Your task to perform on an android device: Search for flights from Tokyo to Mexico city Image 0: 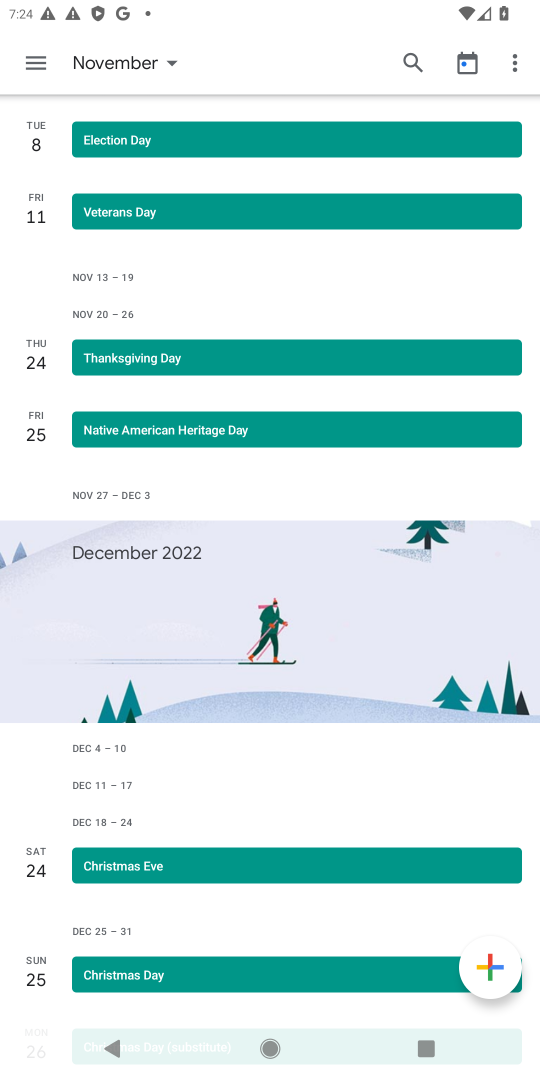
Step 0: press home button
Your task to perform on an android device: Search for flights from Tokyo to Mexico city Image 1: 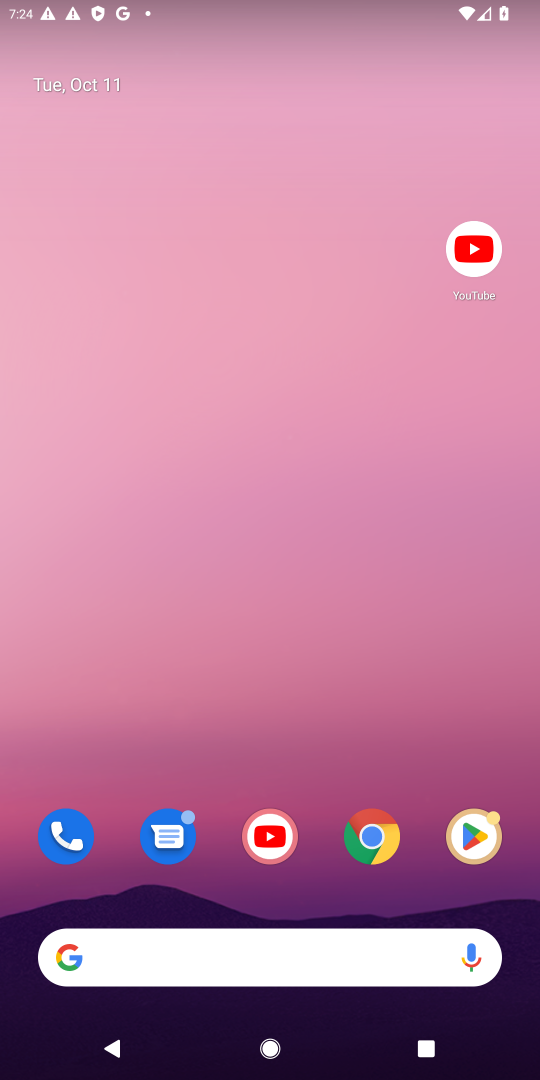
Step 1: click (369, 841)
Your task to perform on an android device: Search for flights from Tokyo to Mexico city Image 2: 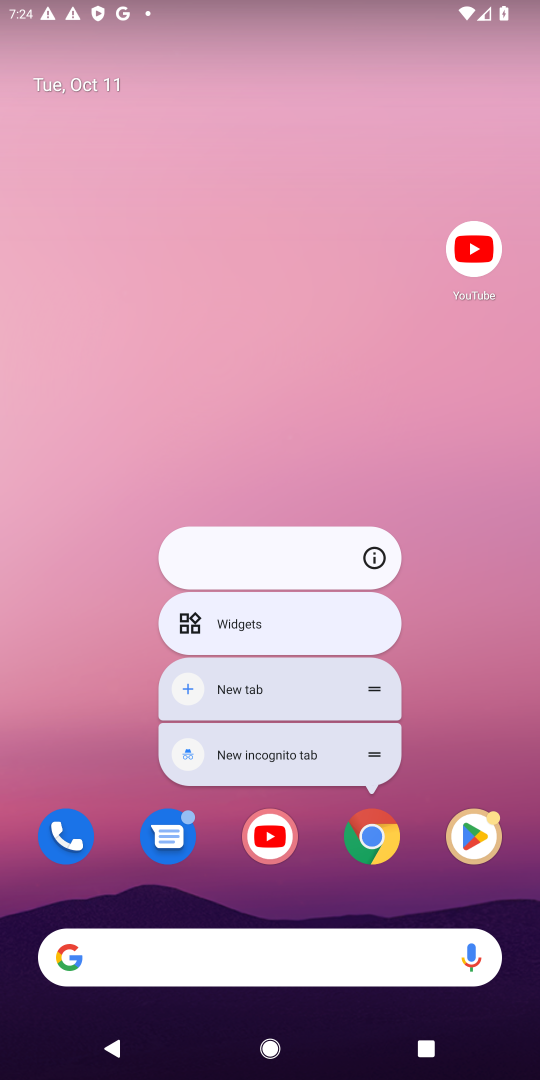
Step 2: click (369, 841)
Your task to perform on an android device: Search for flights from Tokyo to Mexico city Image 3: 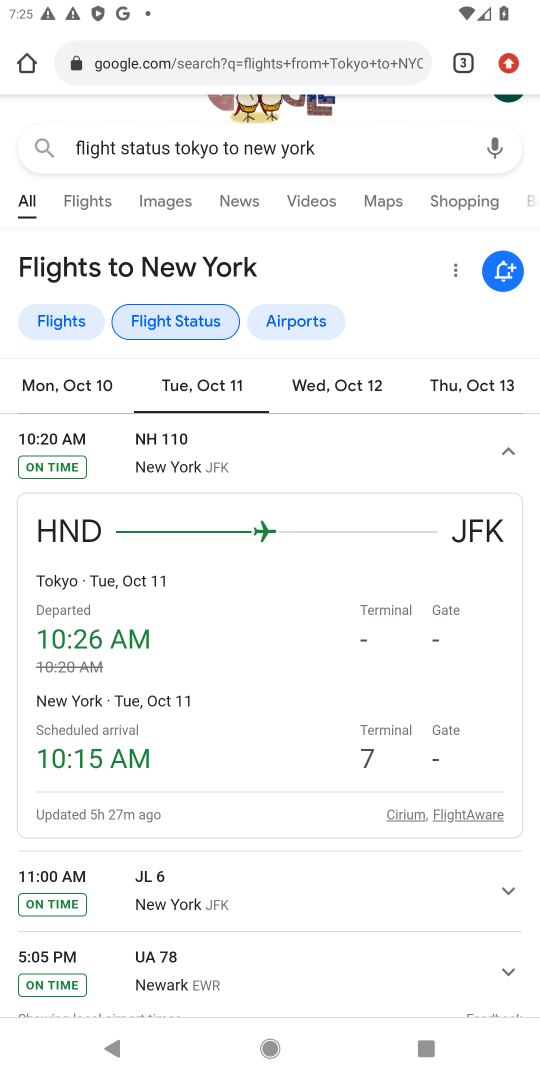
Step 3: click (348, 50)
Your task to perform on an android device: Search for flights from Tokyo to Mexico city Image 4: 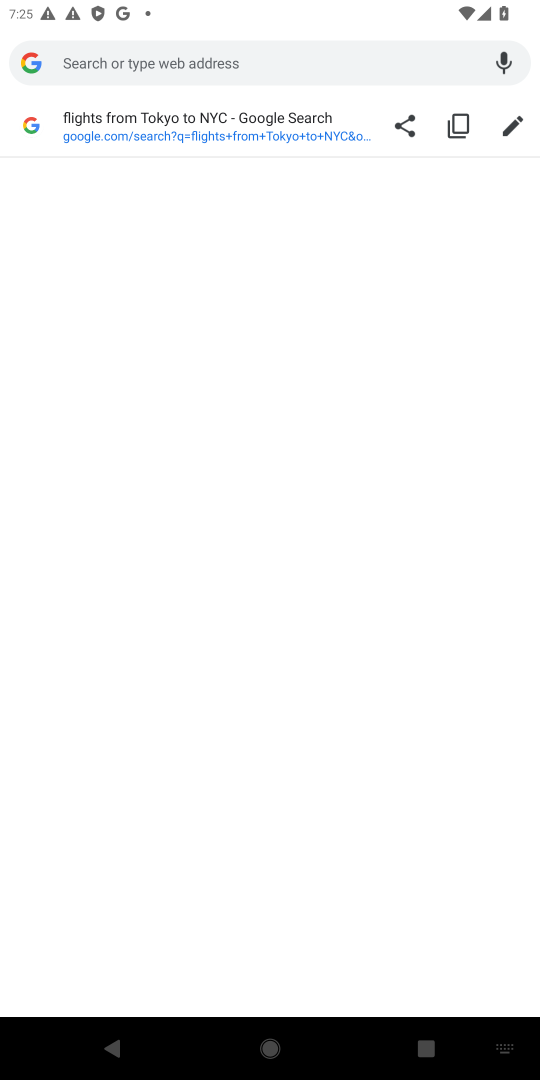
Step 4: type "flights from Tokyo to Mexico city"
Your task to perform on an android device: Search for flights from Tokyo to Mexico city Image 5: 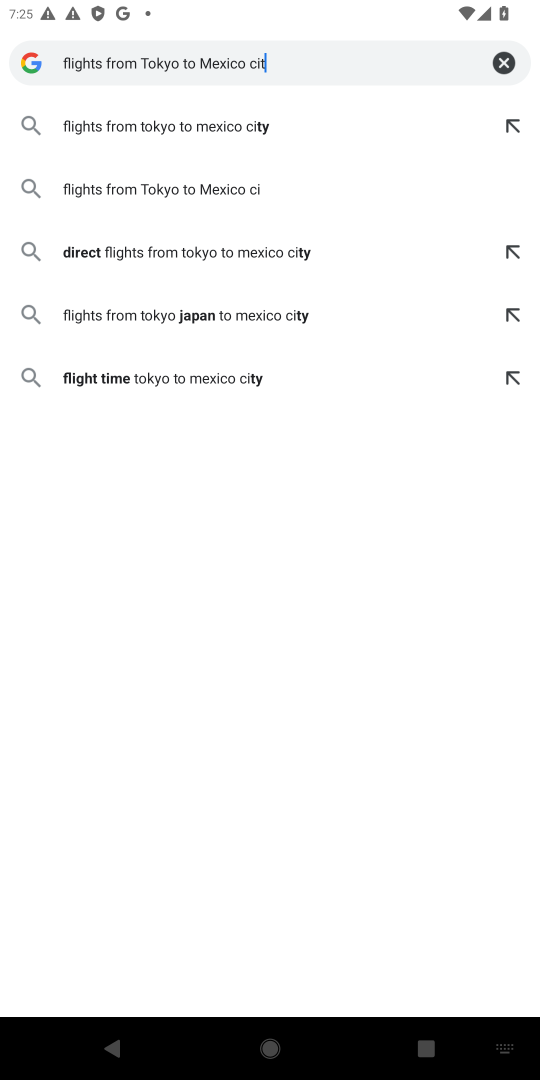
Step 5: press enter
Your task to perform on an android device: Search for flights from Tokyo to Mexico city Image 6: 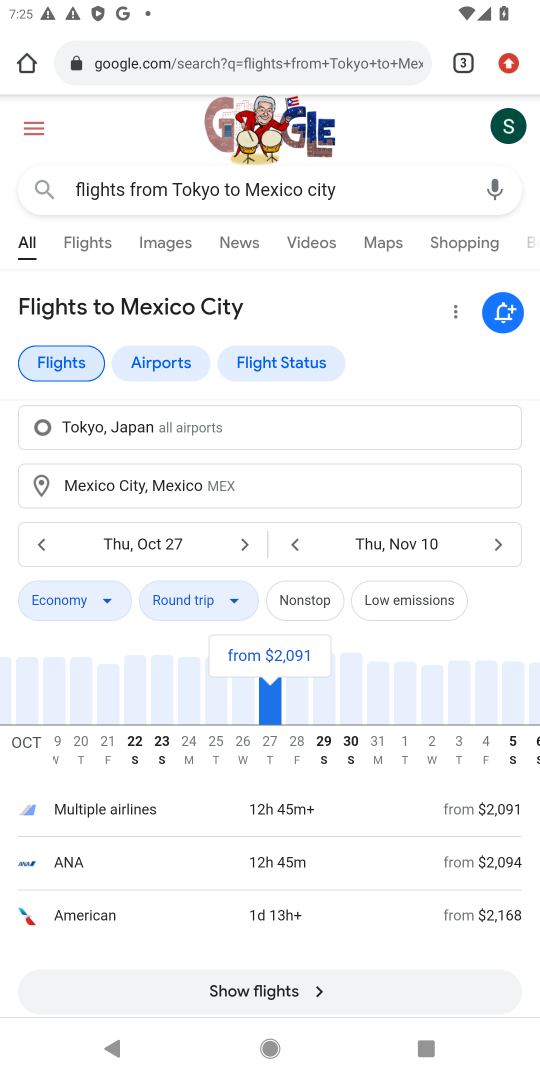
Step 6: drag from (229, 869) to (464, 146)
Your task to perform on an android device: Search for flights from Tokyo to Mexico city Image 7: 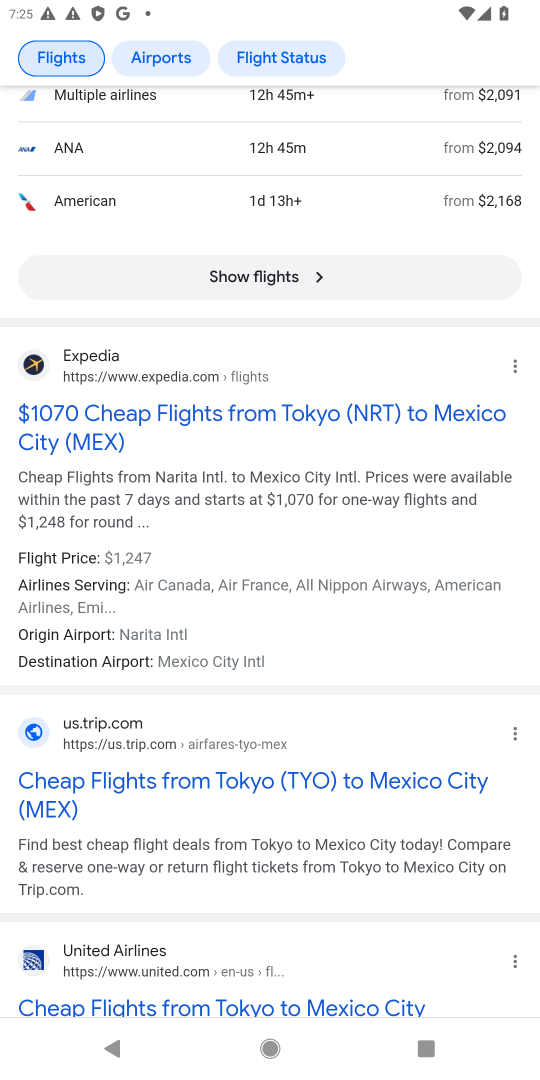
Step 7: click (283, 272)
Your task to perform on an android device: Search for flights from Tokyo to Mexico city Image 8: 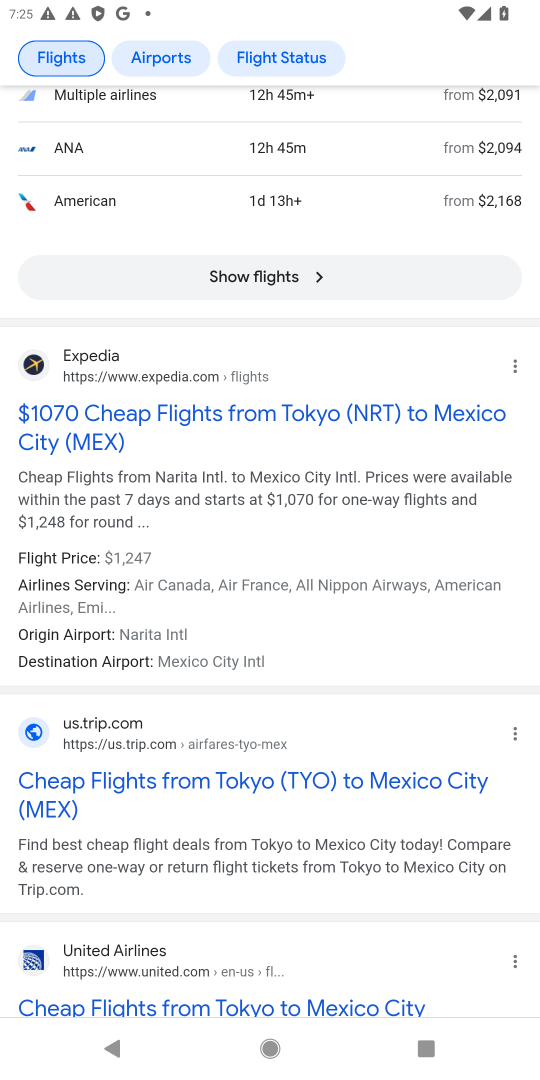
Step 8: click (303, 268)
Your task to perform on an android device: Search for flights from Tokyo to Mexico city Image 9: 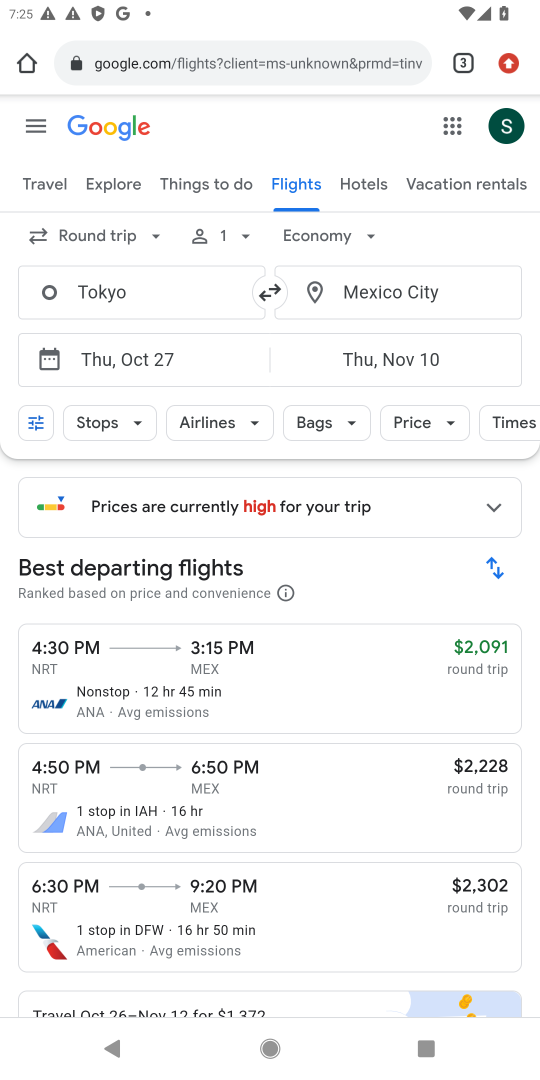
Step 9: task complete